Your task to perform on an android device: Open battery settings Image 0: 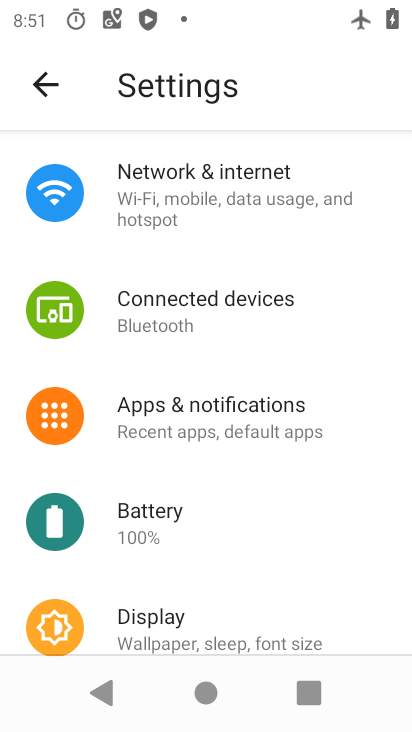
Step 0: drag from (331, 535) to (362, 70)
Your task to perform on an android device: Open battery settings Image 1: 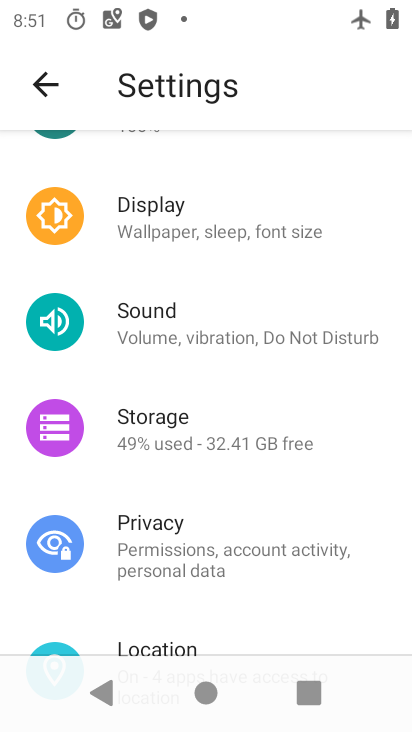
Step 1: drag from (222, 205) to (218, 447)
Your task to perform on an android device: Open battery settings Image 2: 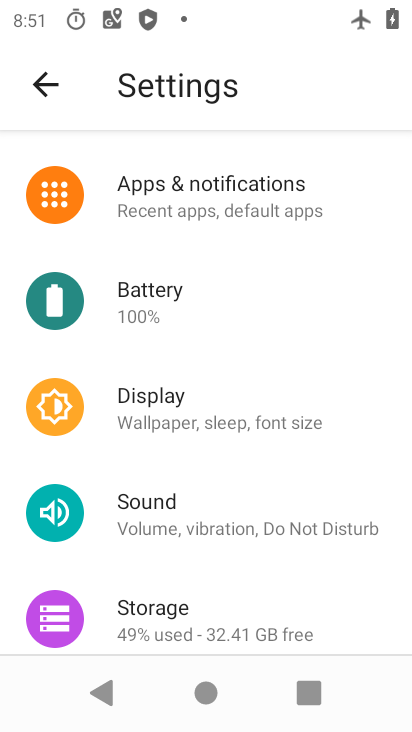
Step 2: click (163, 300)
Your task to perform on an android device: Open battery settings Image 3: 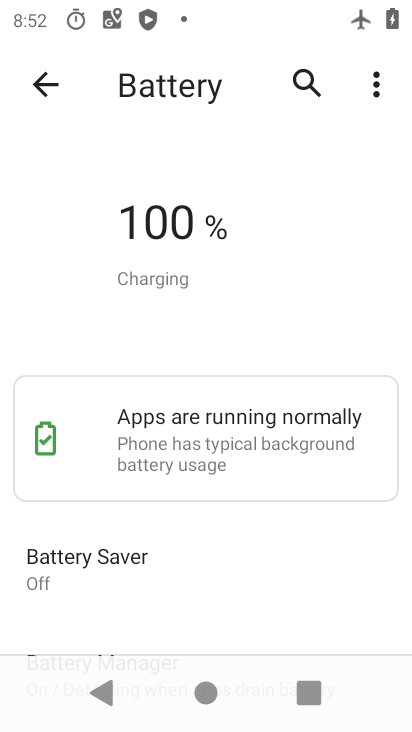
Step 3: task complete